Your task to perform on an android device: open app "Microsoft Excel" (install if not already installed) Image 0: 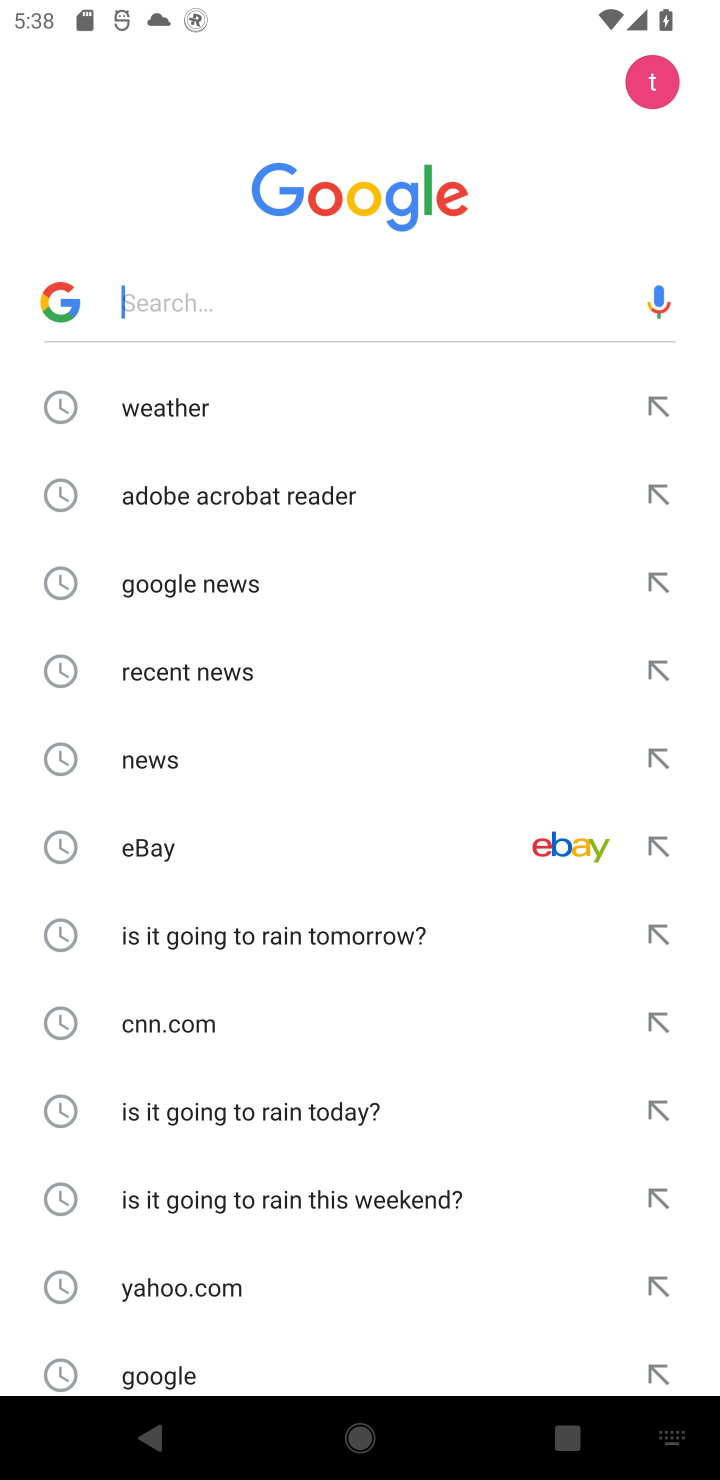
Step 0: press home button
Your task to perform on an android device: open app "Microsoft Excel" (install if not already installed) Image 1: 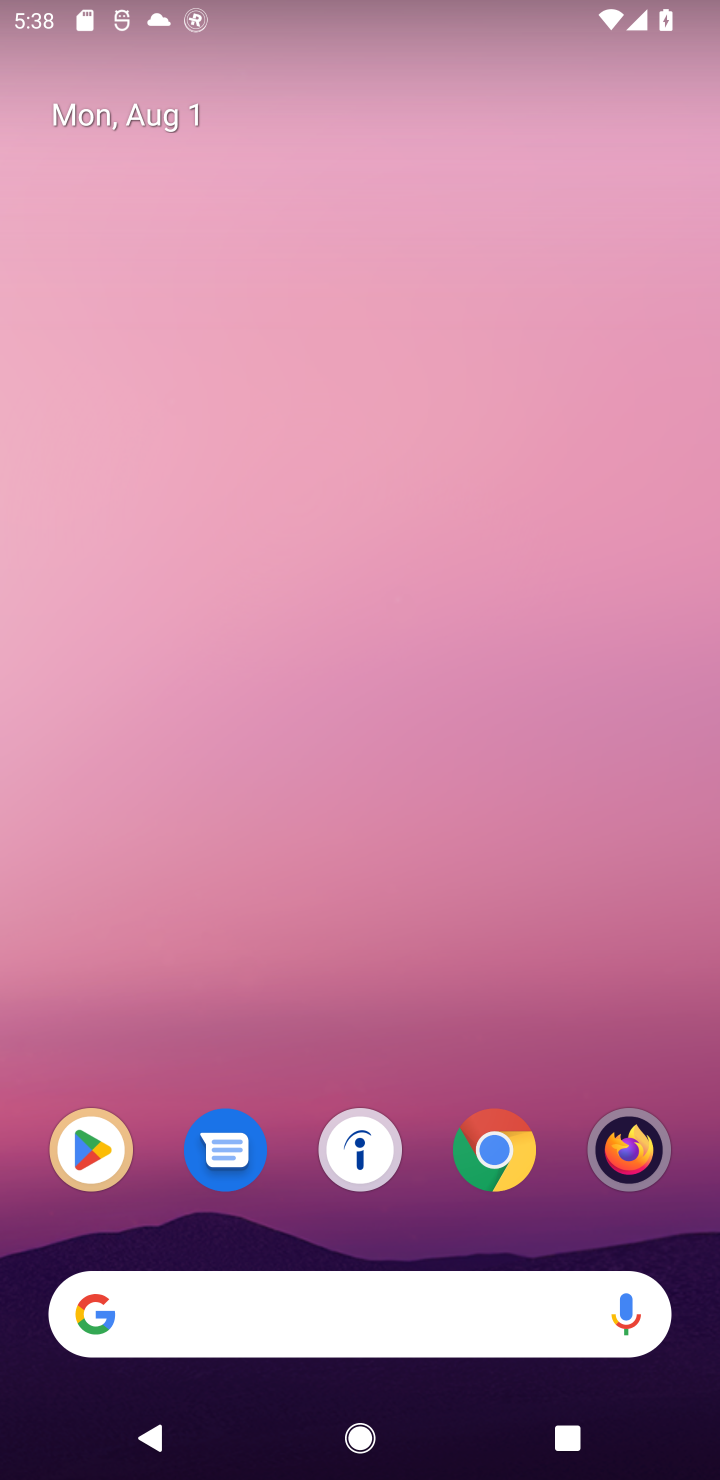
Step 1: click (331, 1282)
Your task to perform on an android device: open app "Microsoft Excel" (install if not already installed) Image 2: 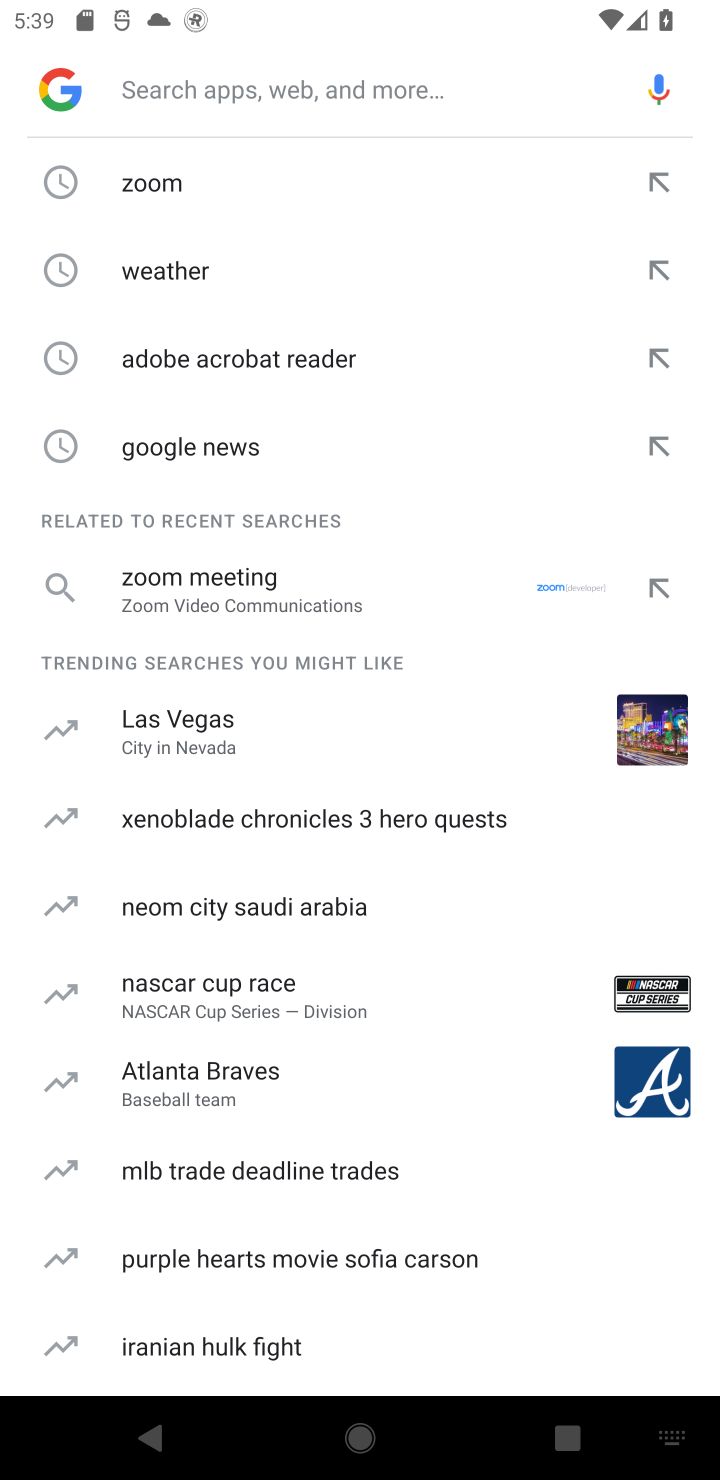
Step 2: type "Microsoft"
Your task to perform on an android device: open app "Microsoft Excel" (install if not already installed) Image 3: 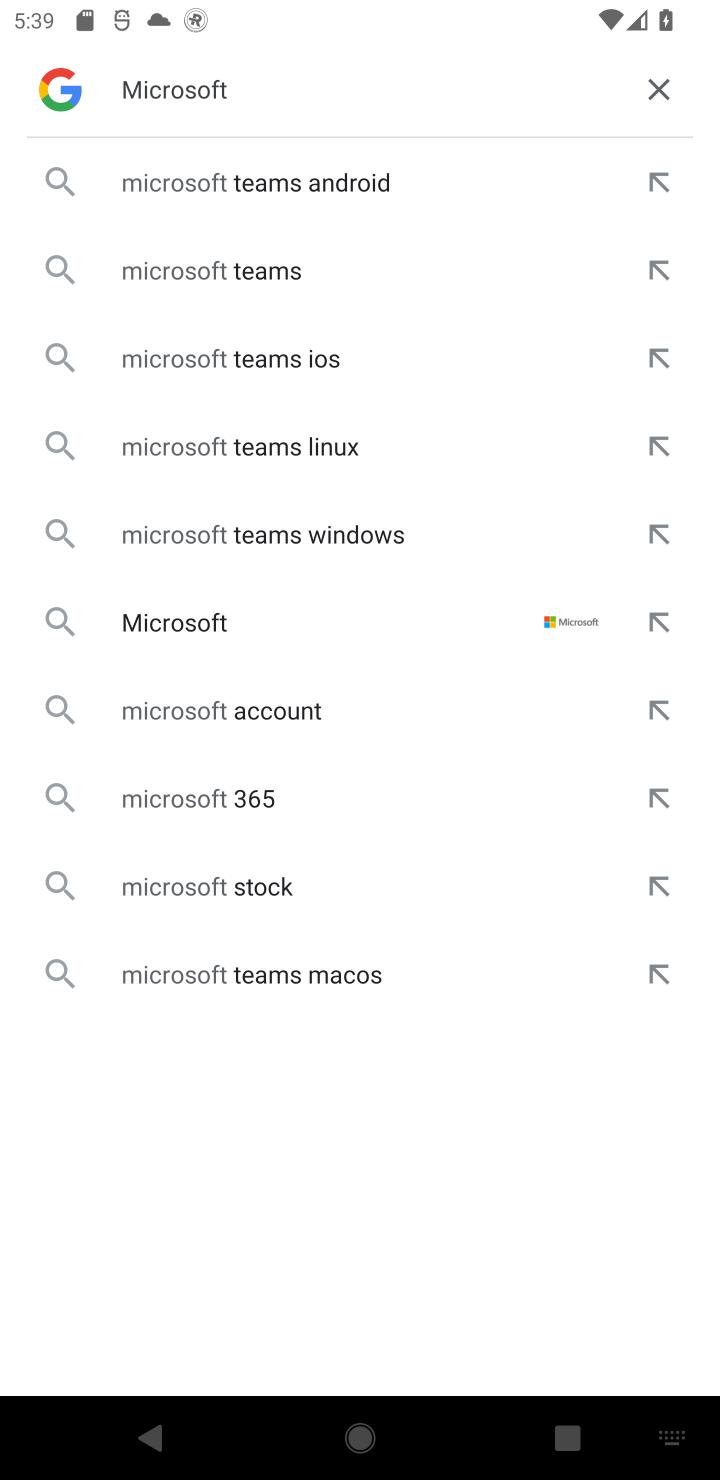
Step 3: type " excel"
Your task to perform on an android device: open app "Microsoft Excel" (install if not already installed) Image 4: 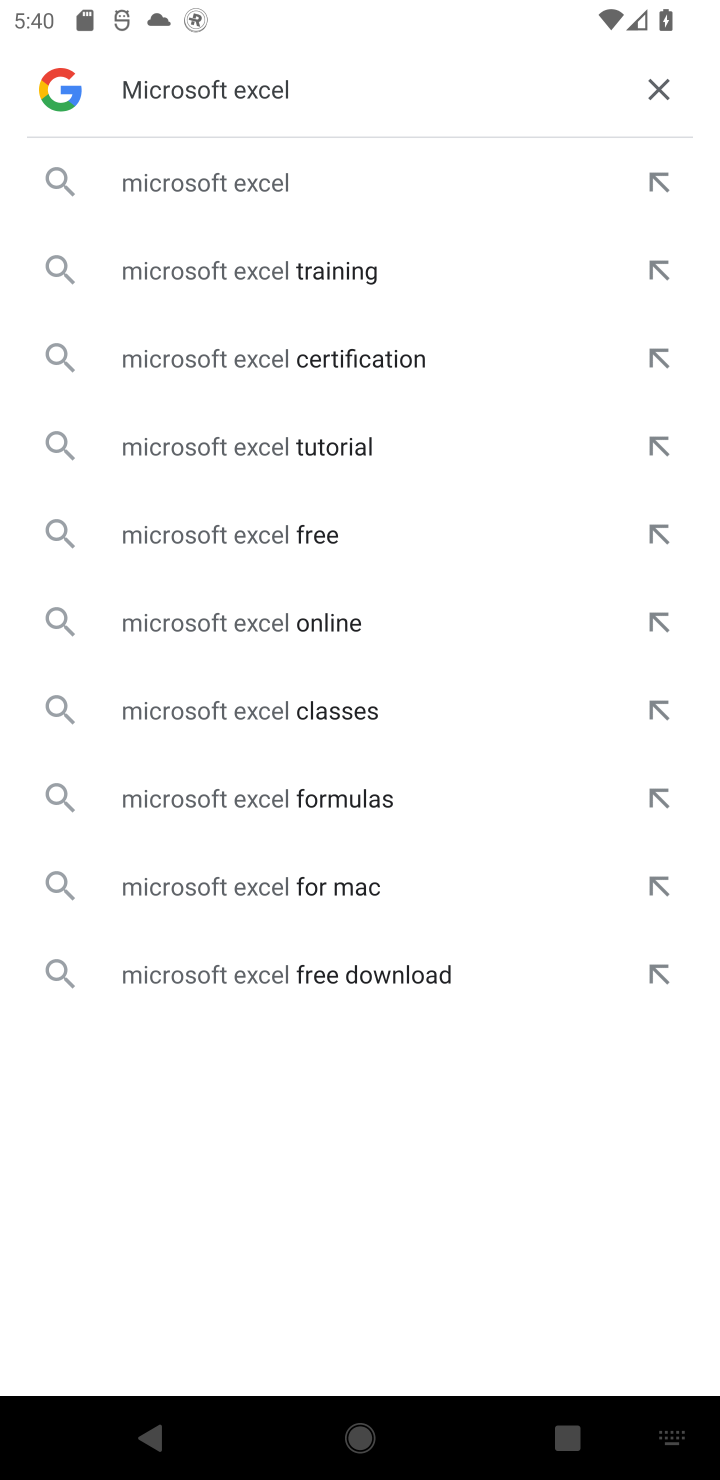
Step 4: click (322, 158)
Your task to perform on an android device: open app "Microsoft Excel" (install if not already installed) Image 5: 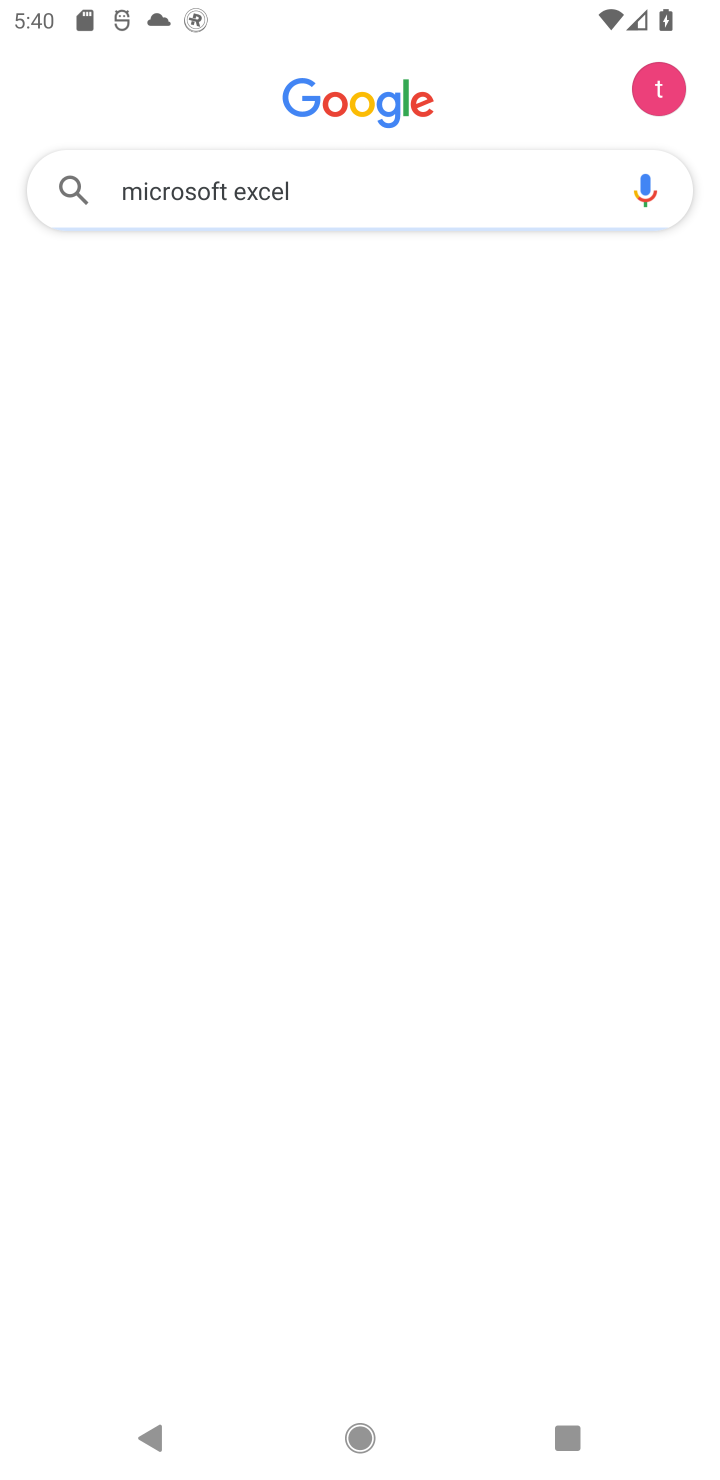
Step 5: task complete